Your task to perform on an android device: Check the settings for the Google Maps app Image 0: 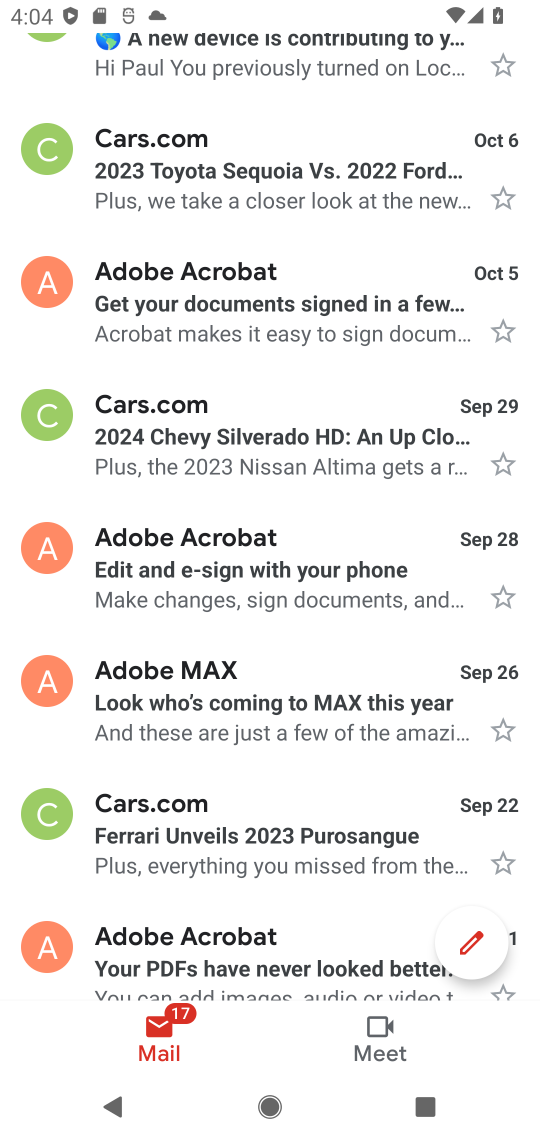
Step 0: press home button
Your task to perform on an android device: Check the settings for the Google Maps app Image 1: 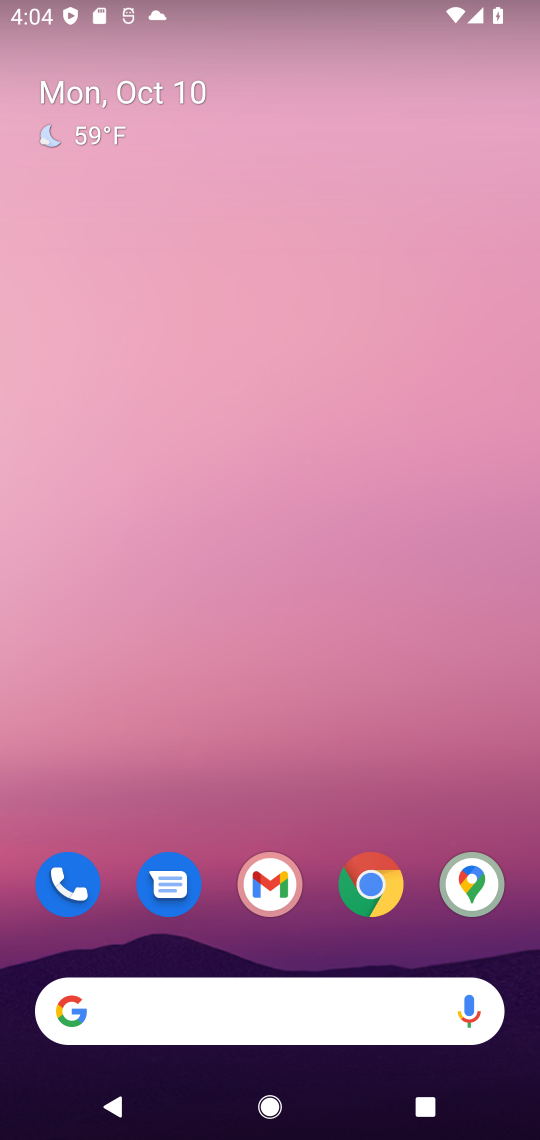
Step 1: click (480, 879)
Your task to perform on an android device: Check the settings for the Google Maps app Image 2: 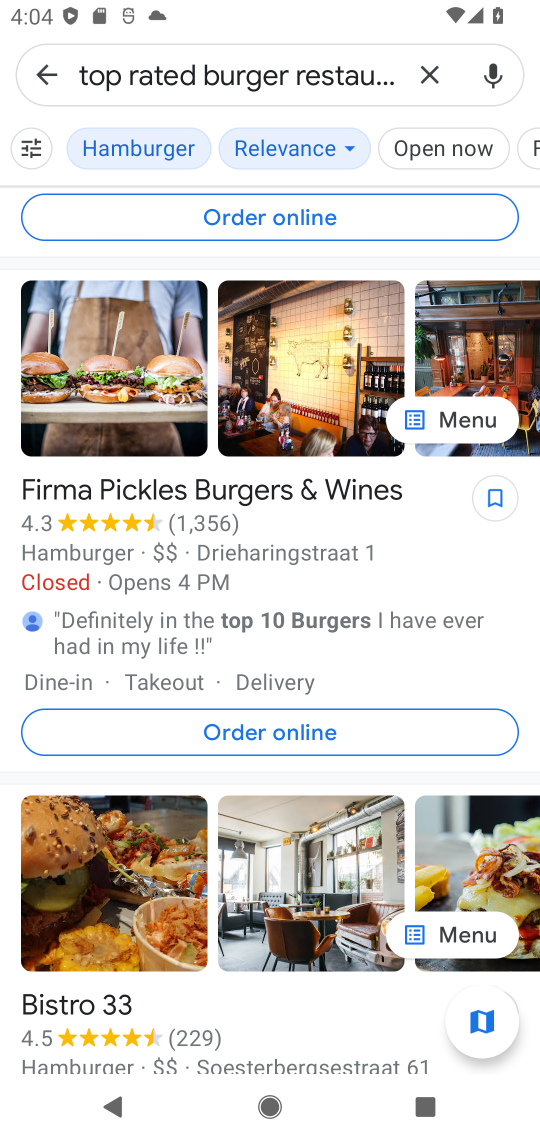
Step 2: click (430, 80)
Your task to perform on an android device: Check the settings for the Google Maps app Image 3: 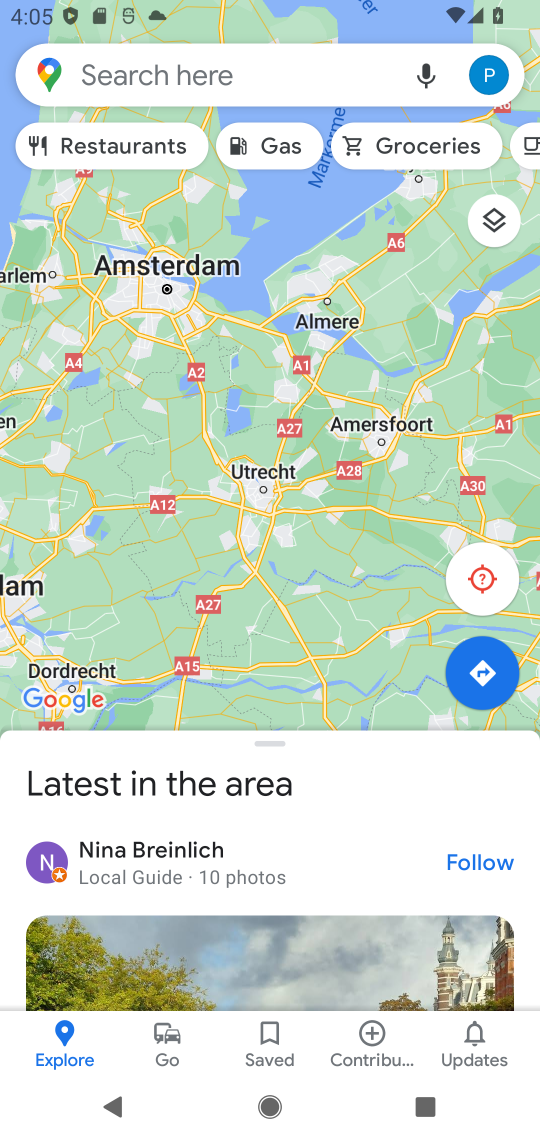
Step 3: click (210, 67)
Your task to perform on an android device: Check the settings for the Google Maps app Image 4: 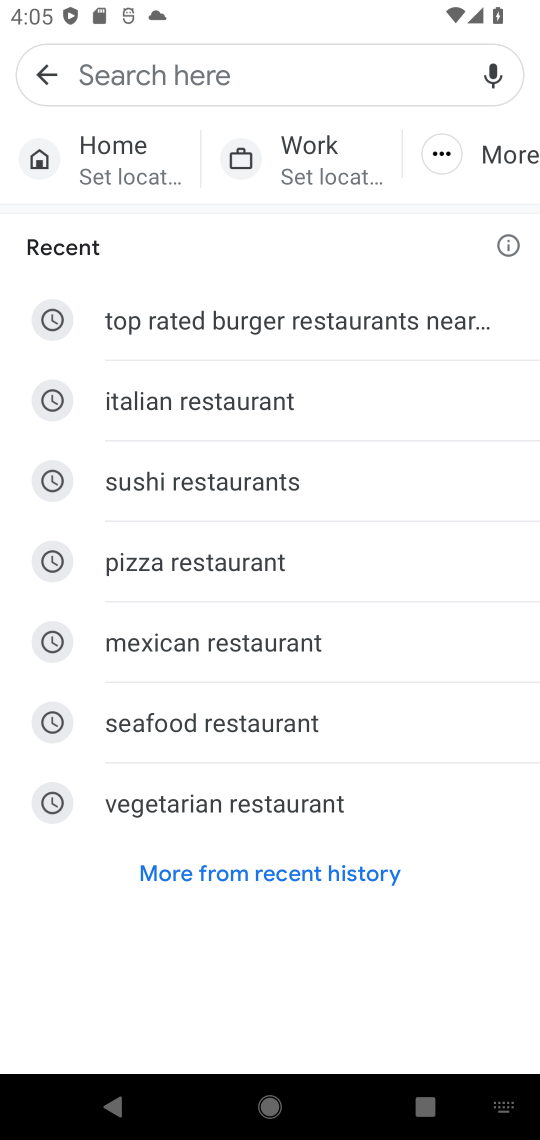
Step 4: click (54, 71)
Your task to perform on an android device: Check the settings for the Google Maps app Image 5: 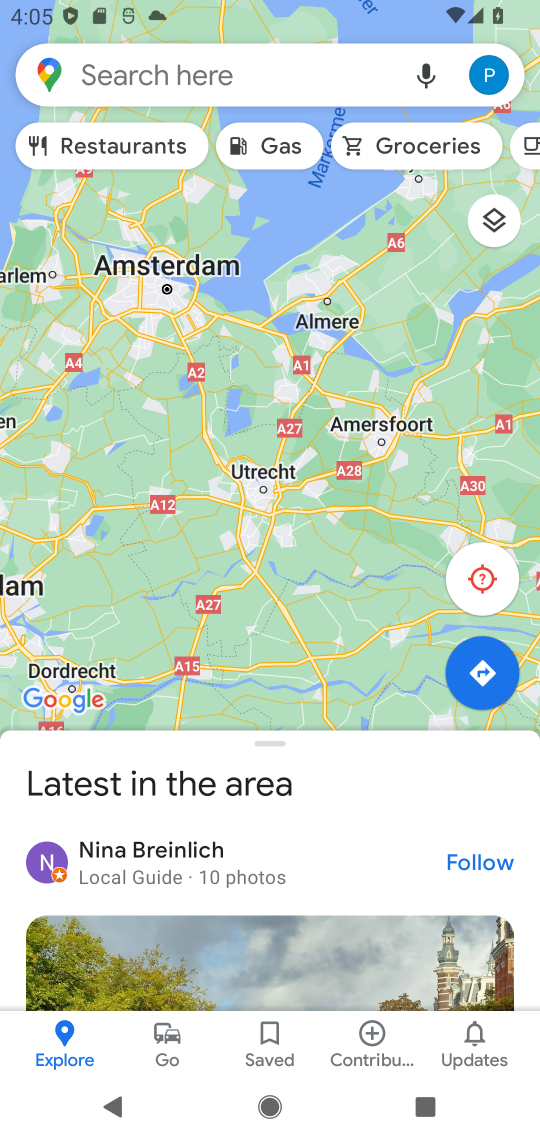
Step 5: press back button
Your task to perform on an android device: Check the settings for the Google Maps app Image 6: 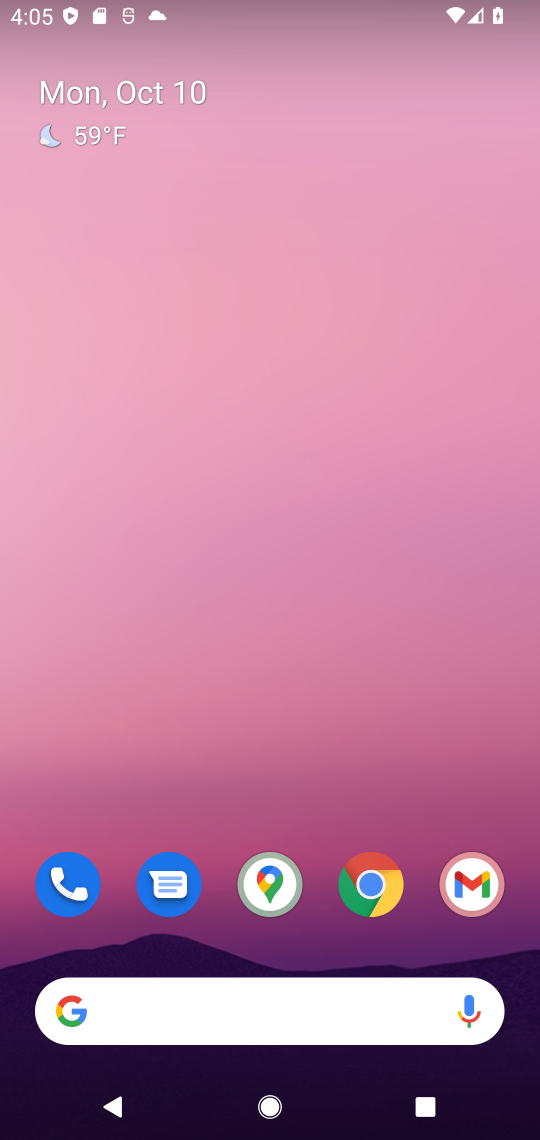
Step 6: click (270, 892)
Your task to perform on an android device: Check the settings for the Google Maps app Image 7: 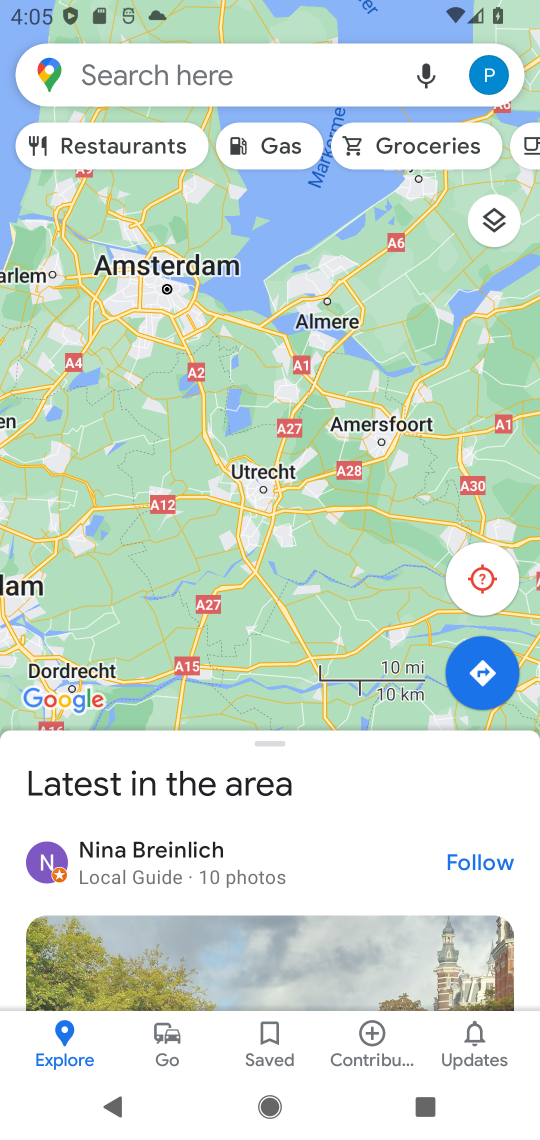
Step 7: click (501, 82)
Your task to perform on an android device: Check the settings for the Google Maps app Image 8: 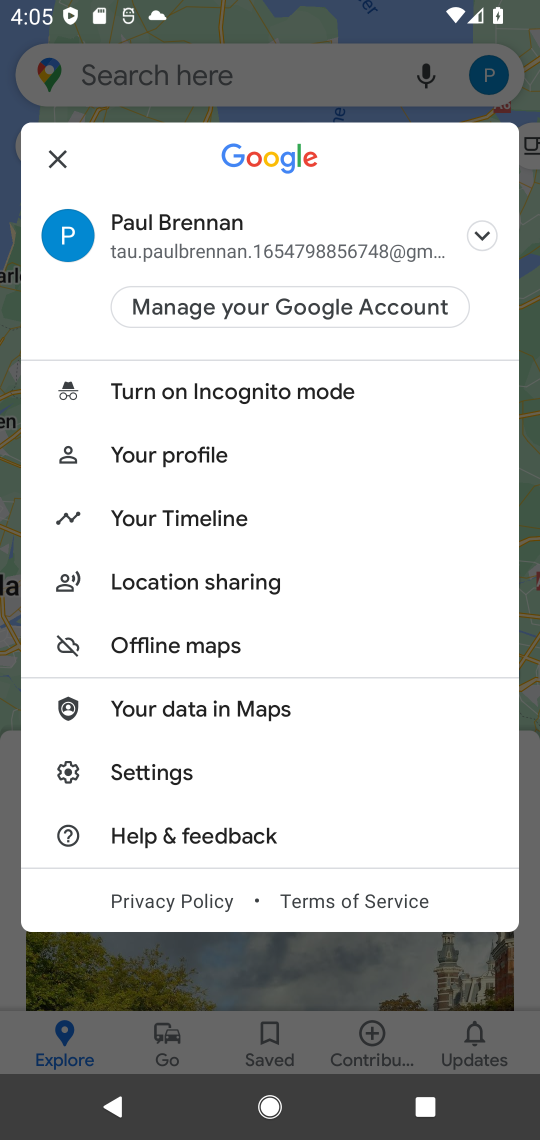
Step 8: click (127, 771)
Your task to perform on an android device: Check the settings for the Google Maps app Image 9: 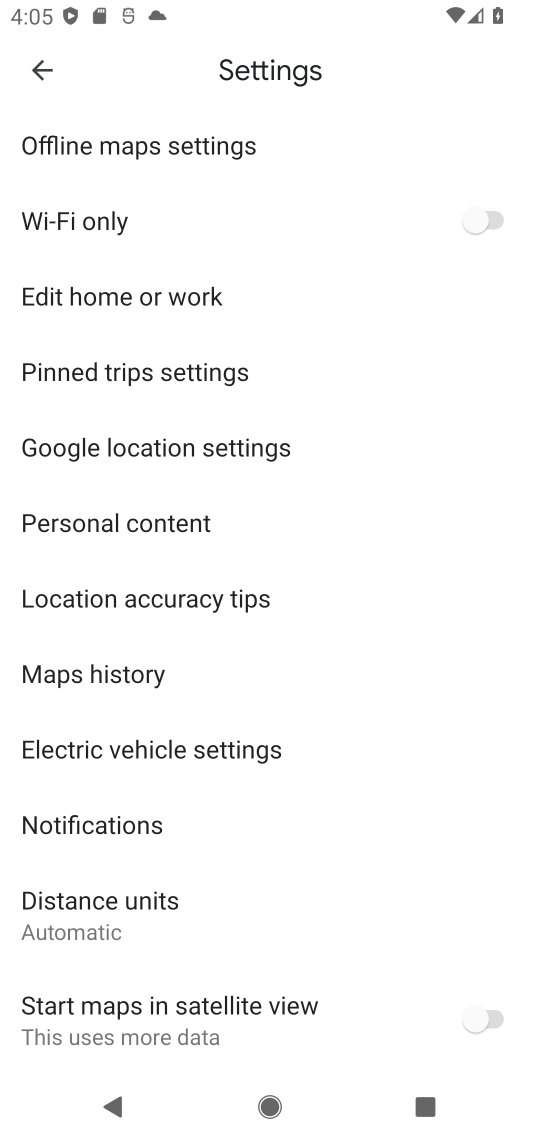
Step 9: drag from (191, 809) to (220, 588)
Your task to perform on an android device: Check the settings for the Google Maps app Image 10: 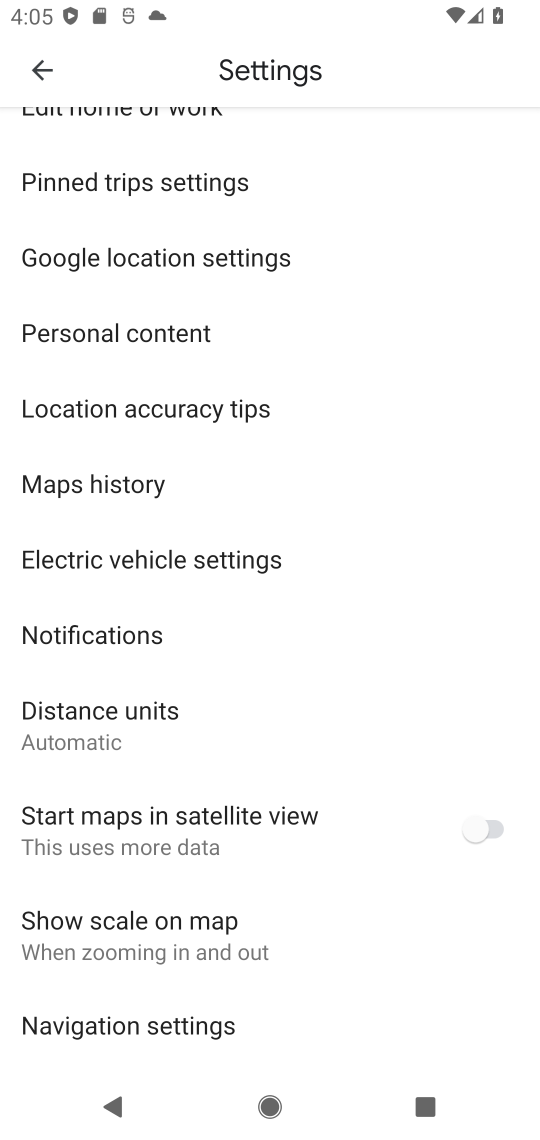
Step 10: click (115, 939)
Your task to perform on an android device: Check the settings for the Google Maps app Image 11: 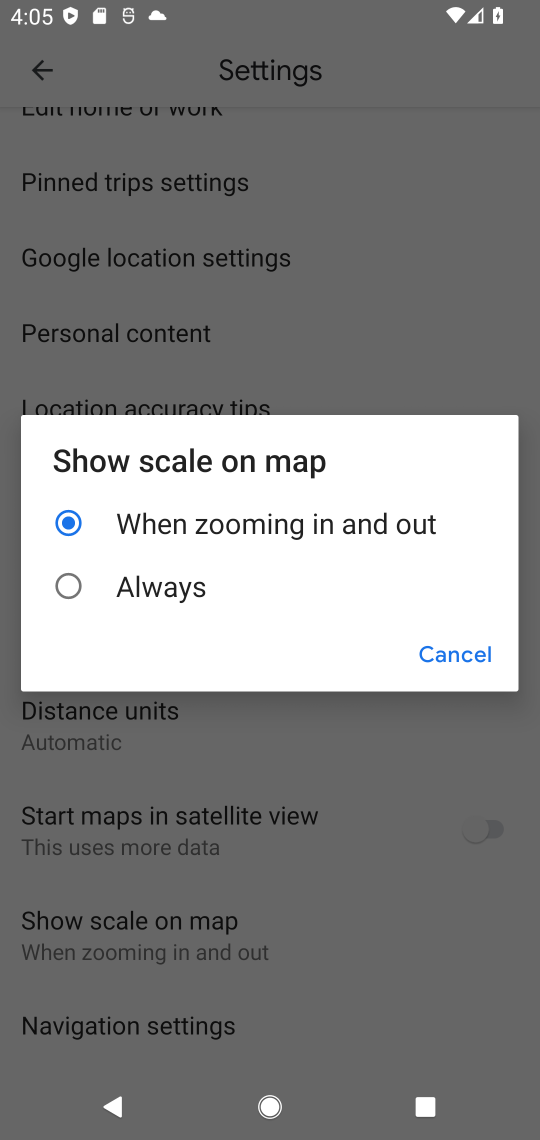
Step 11: click (443, 655)
Your task to perform on an android device: Check the settings for the Google Maps app Image 12: 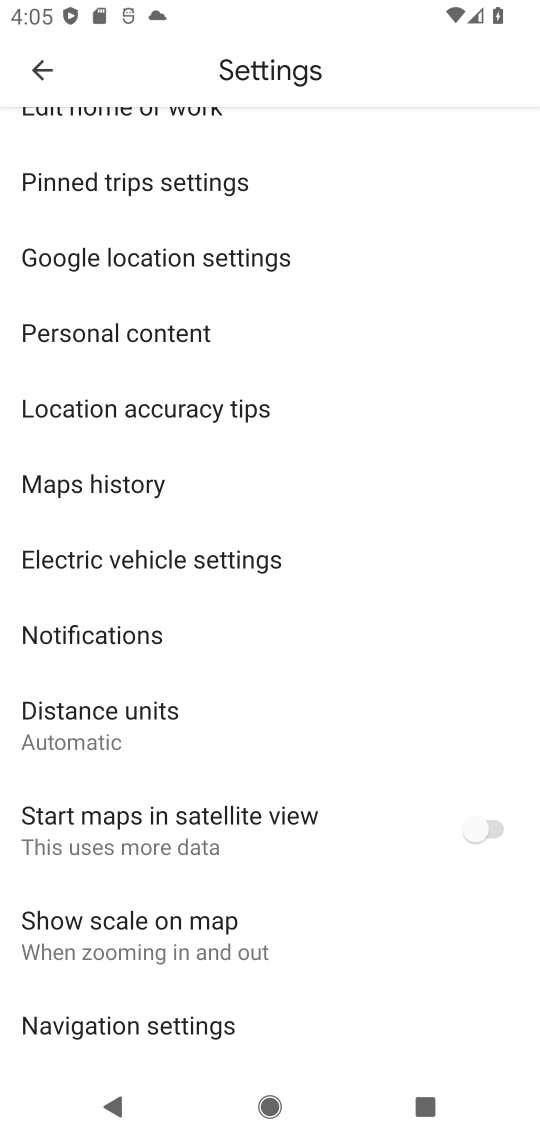
Step 12: click (97, 715)
Your task to perform on an android device: Check the settings for the Google Maps app Image 13: 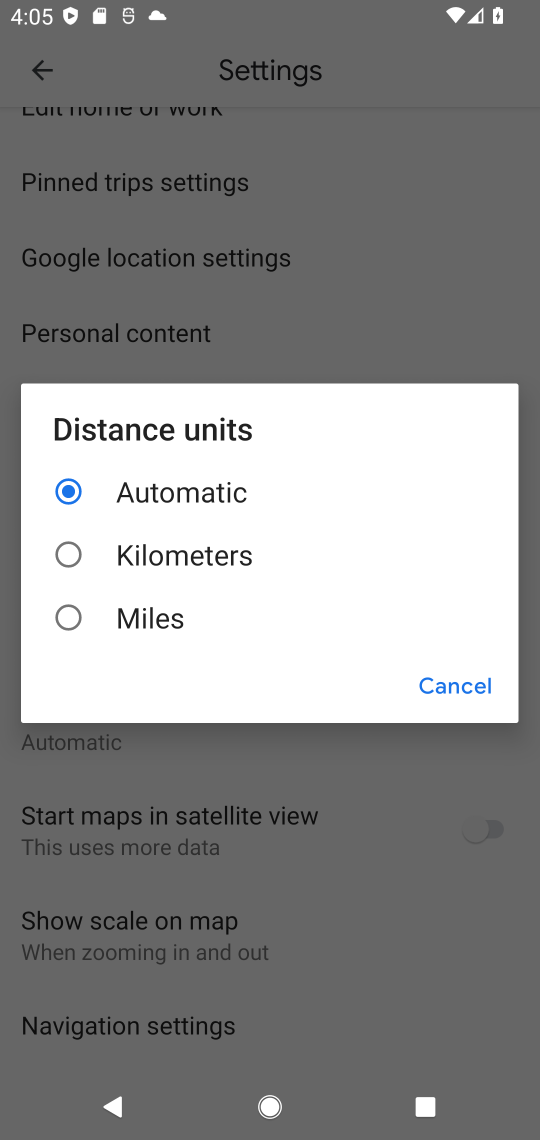
Step 13: click (450, 695)
Your task to perform on an android device: Check the settings for the Google Maps app Image 14: 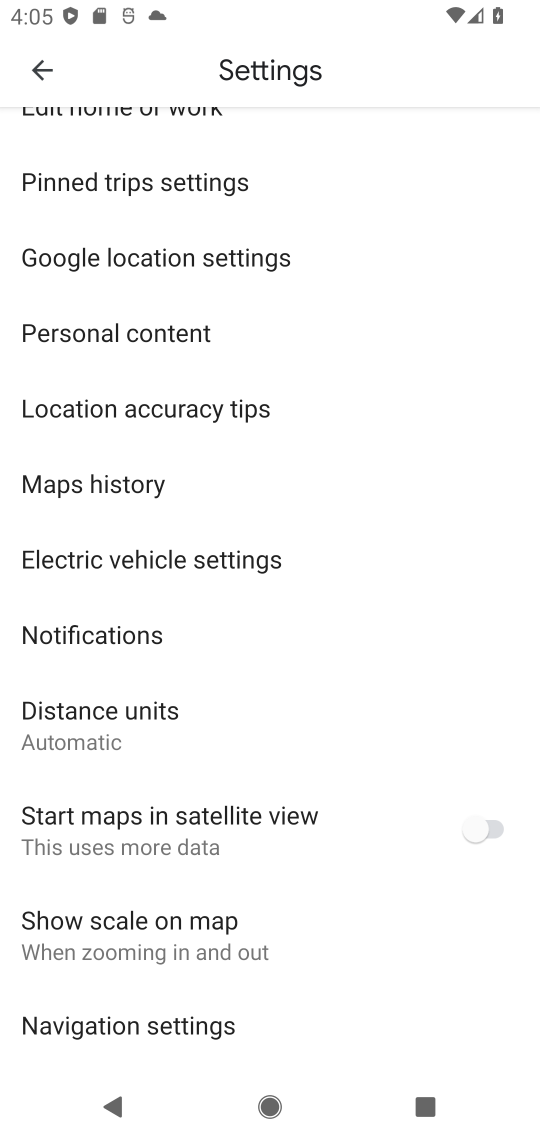
Step 14: task complete